Your task to perform on an android device: choose inbox layout in the gmail app Image 0: 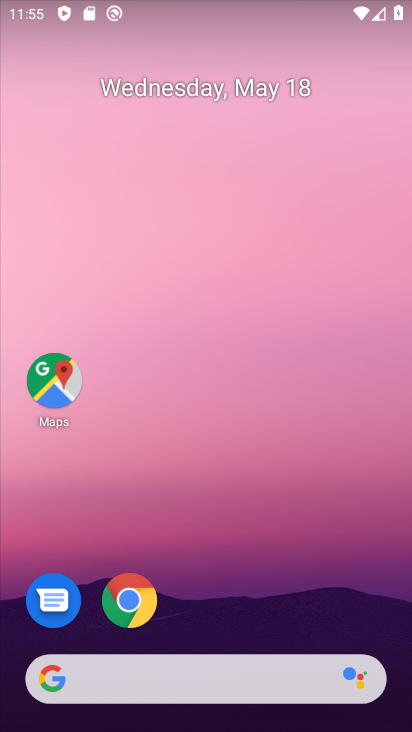
Step 0: drag from (237, 566) to (181, 6)
Your task to perform on an android device: choose inbox layout in the gmail app Image 1: 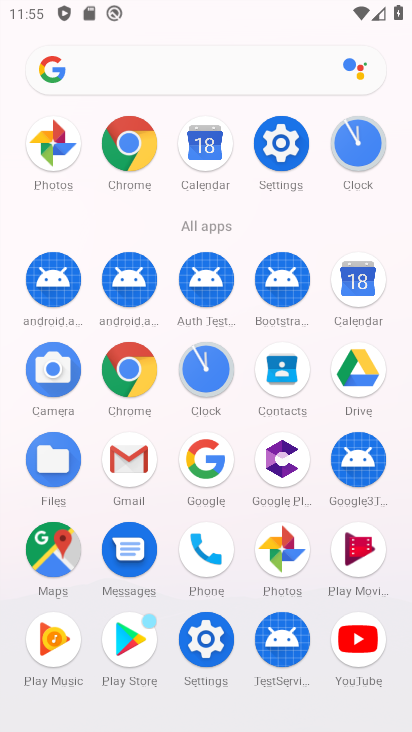
Step 1: click (115, 460)
Your task to perform on an android device: choose inbox layout in the gmail app Image 2: 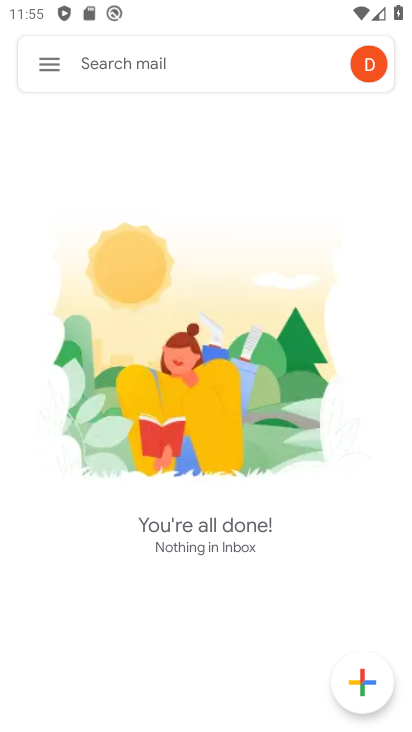
Step 2: click (36, 60)
Your task to perform on an android device: choose inbox layout in the gmail app Image 3: 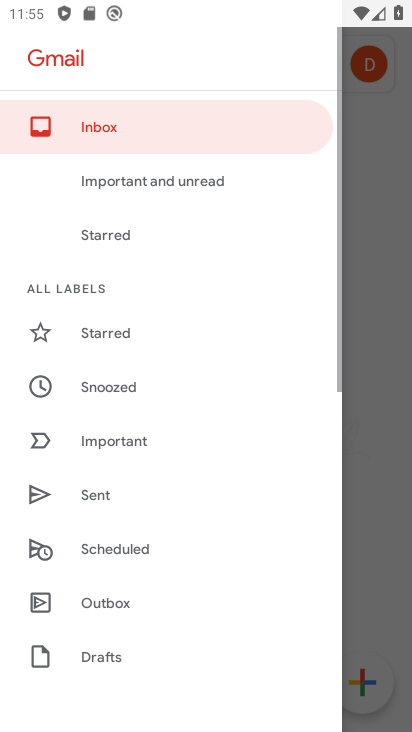
Step 3: drag from (208, 667) to (197, 141)
Your task to perform on an android device: choose inbox layout in the gmail app Image 4: 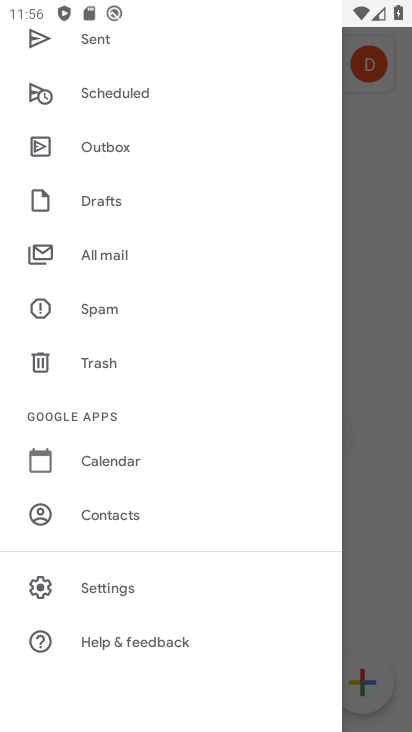
Step 4: click (125, 583)
Your task to perform on an android device: choose inbox layout in the gmail app Image 5: 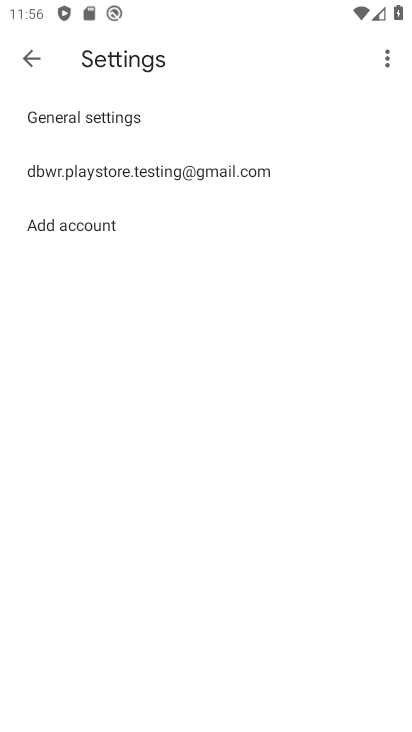
Step 5: click (140, 163)
Your task to perform on an android device: choose inbox layout in the gmail app Image 6: 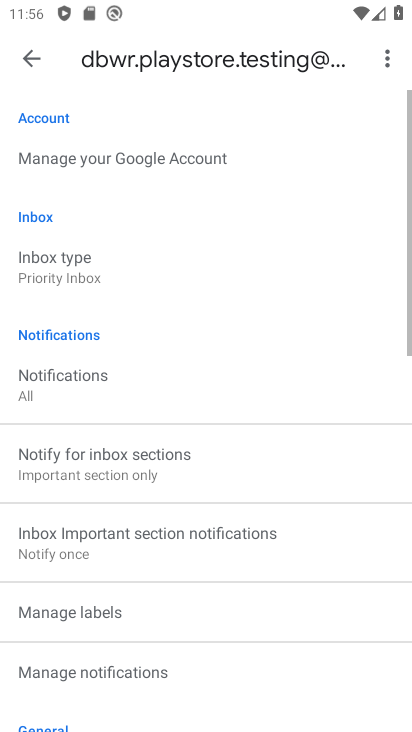
Step 6: click (110, 285)
Your task to perform on an android device: choose inbox layout in the gmail app Image 7: 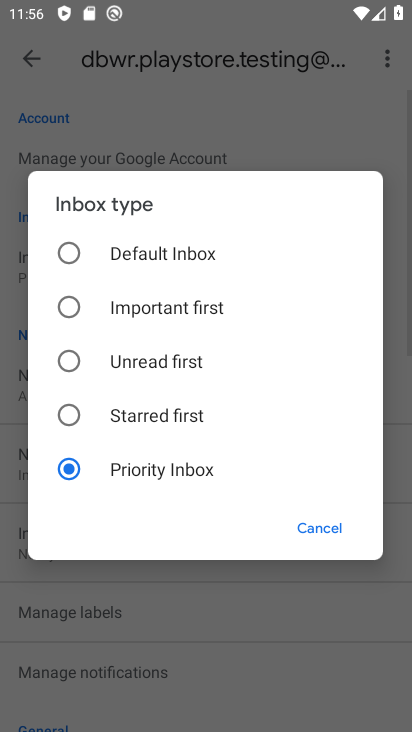
Step 7: click (156, 316)
Your task to perform on an android device: choose inbox layout in the gmail app Image 8: 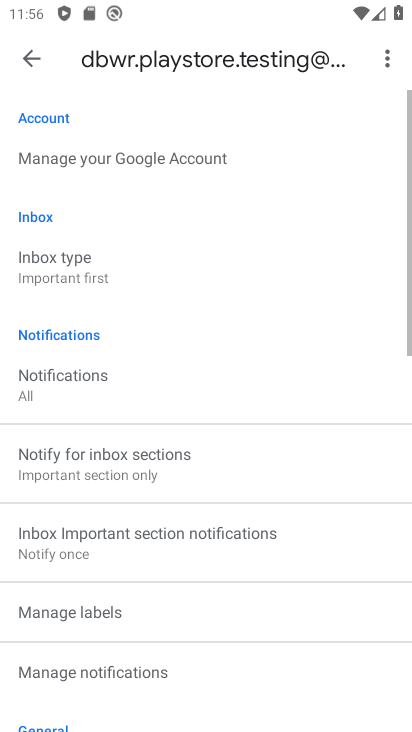
Step 8: task complete